Your task to perform on an android device: Open my contact list Image 0: 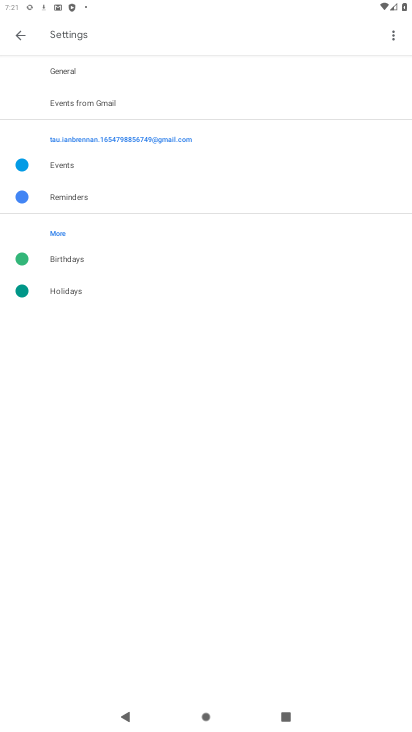
Step 0: press home button
Your task to perform on an android device: Open my contact list Image 1: 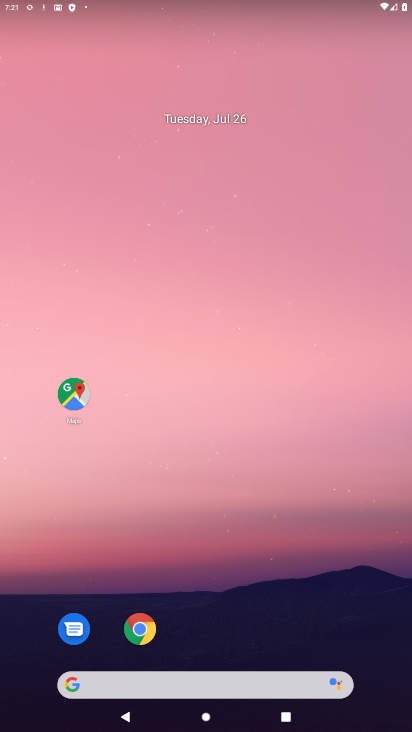
Step 1: drag from (208, 607) to (210, 3)
Your task to perform on an android device: Open my contact list Image 2: 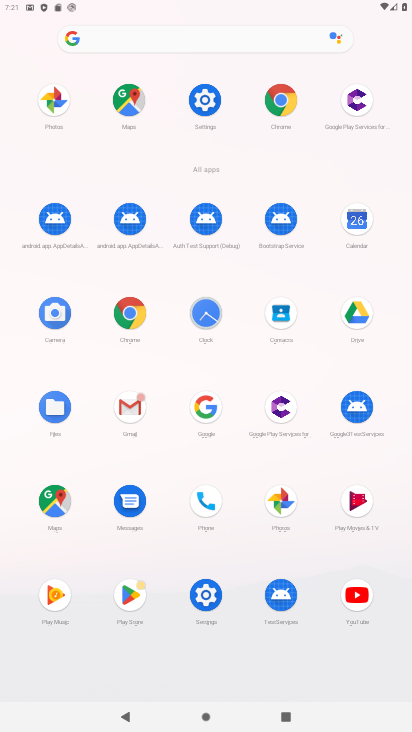
Step 2: click (277, 320)
Your task to perform on an android device: Open my contact list Image 3: 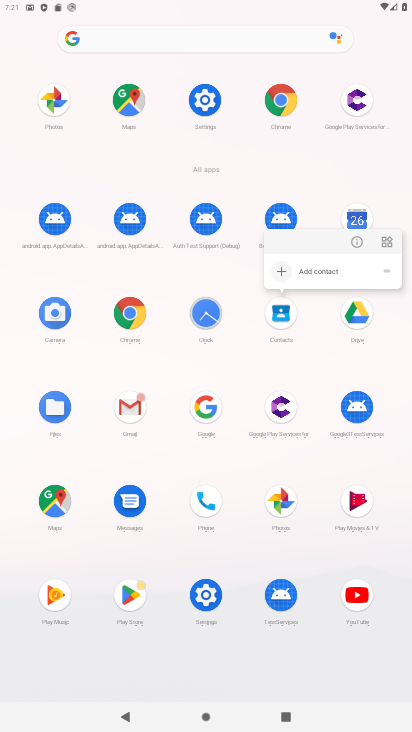
Step 3: click (291, 330)
Your task to perform on an android device: Open my contact list Image 4: 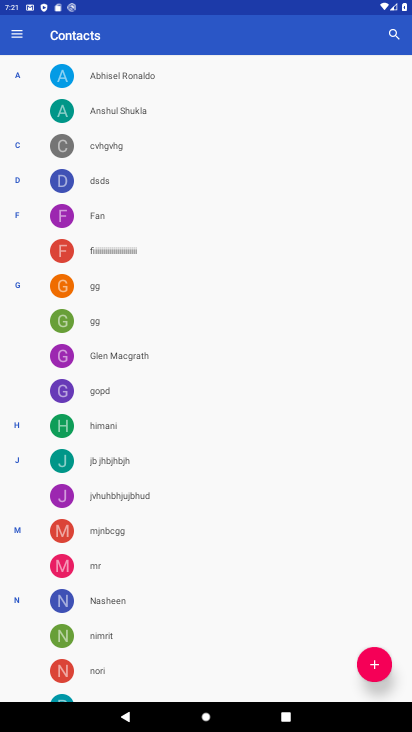
Step 4: task complete